Your task to perform on an android device: toggle priority inbox in the gmail app Image 0: 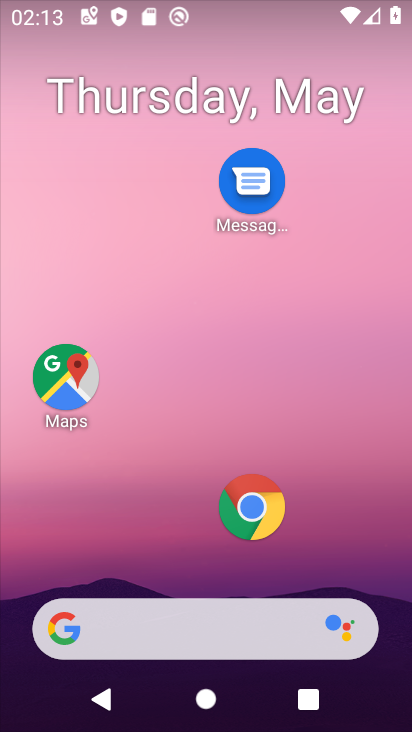
Step 0: drag from (165, 693) to (168, 102)
Your task to perform on an android device: toggle priority inbox in the gmail app Image 1: 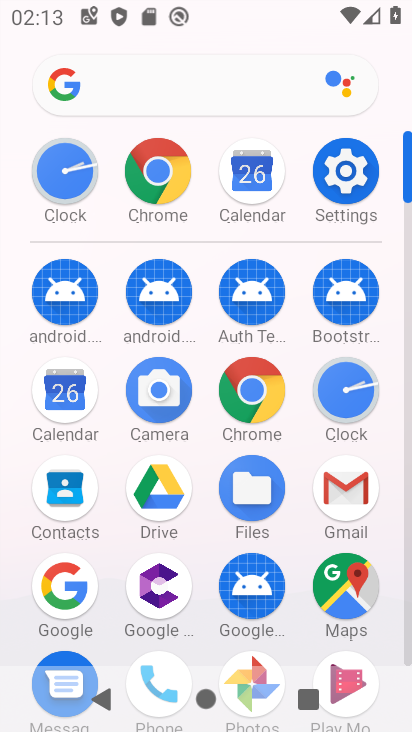
Step 1: click (359, 477)
Your task to perform on an android device: toggle priority inbox in the gmail app Image 2: 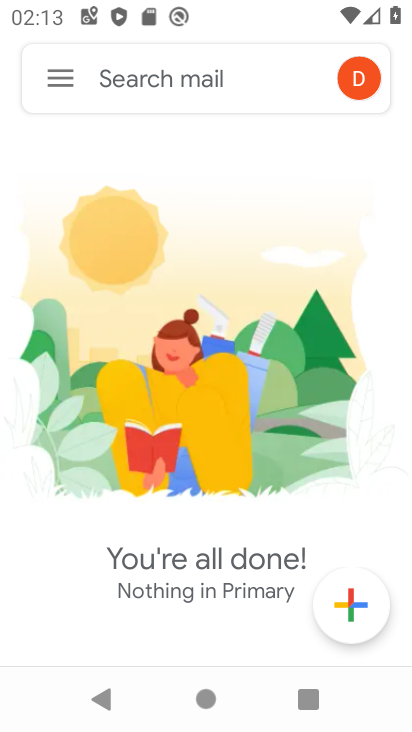
Step 2: click (61, 80)
Your task to perform on an android device: toggle priority inbox in the gmail app Image 3: 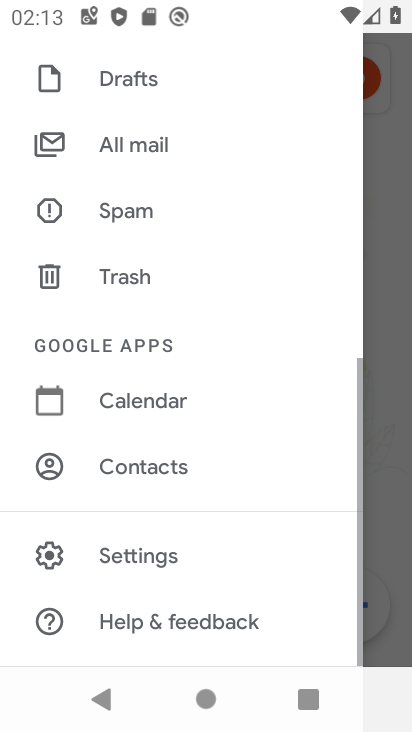
Step 3: drag from (230, 536) to (237, 146)
Your task to perform on an android device: toggle priority inbox in the gmail app Image 4: 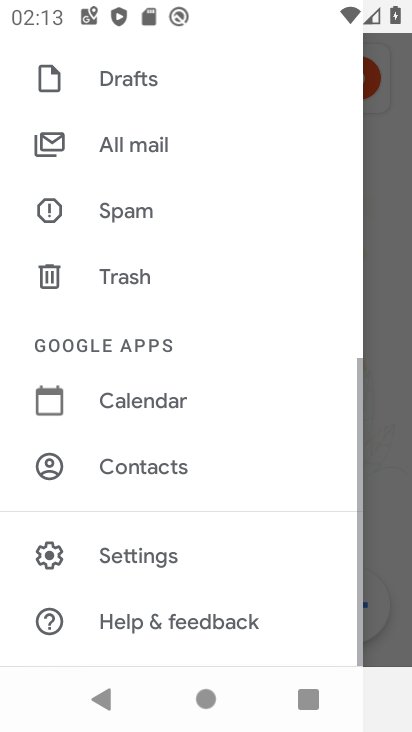
Step 4: click (194, 551)
Your task to perform on an android device: toggle priority inbox in the gmail app Image 5: 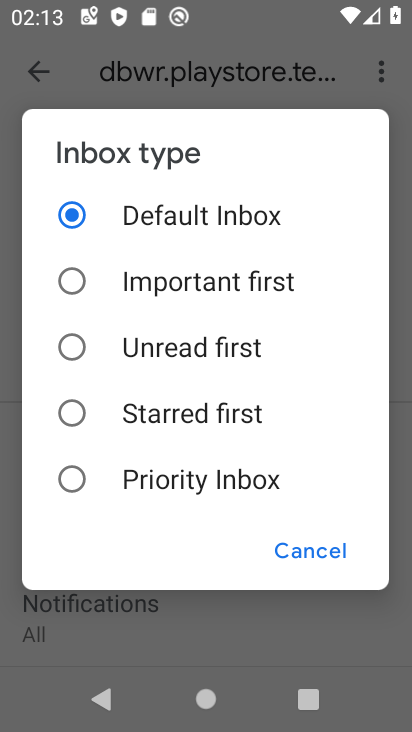
Step 5: click (285, 551)
Your task to perform on an android device: toggle priority inbox in the gmail app Image 6: 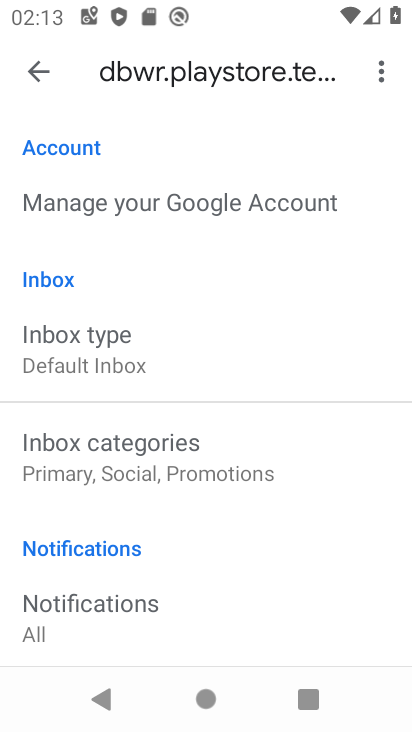
Step 6: click (92, 336)
Your task to perform on an android device: toggle priority inbox in the gmail app Image 7: 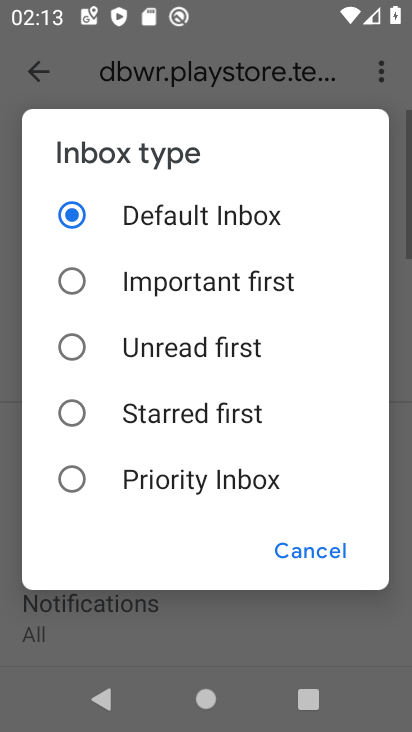
Step 7: click (74, 491)
Your task to perform on an android device: toggle priority inbox in the gmail app Image 8: 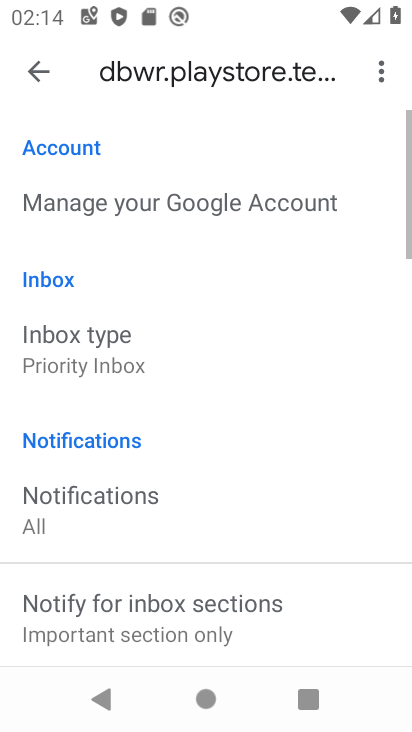
Step 8: task complete